Your task to perform on an android device: change the clock style Image 0: 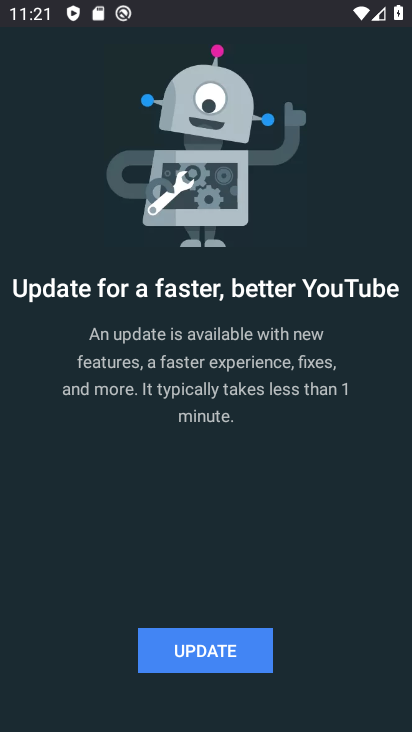
Step 0: press home button
Your task to perform on an android device: change the clock style Image 1: 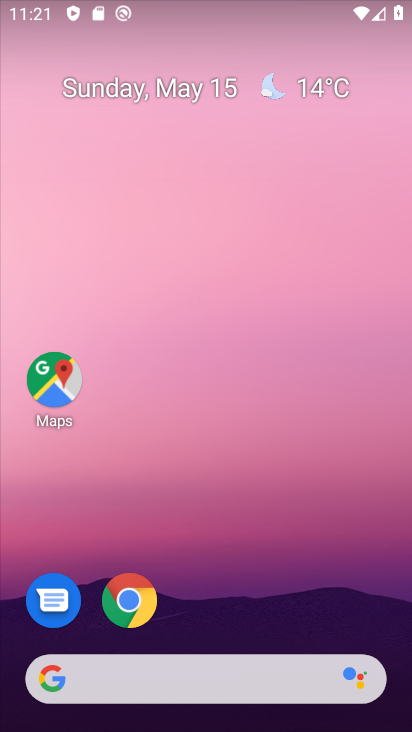
Step 1: drag from (375, 546) to (330, 64)
Your task to perform on an android device: change the clock style Image 2: 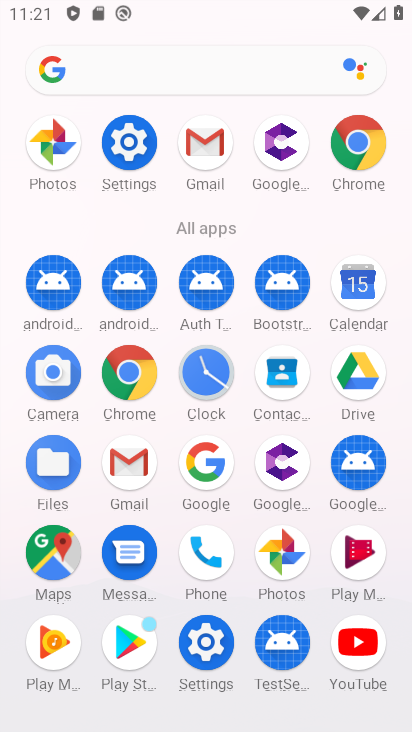
Step 2: click (207, 369)
Your task to perform on an android device: change the clock style Image 3: 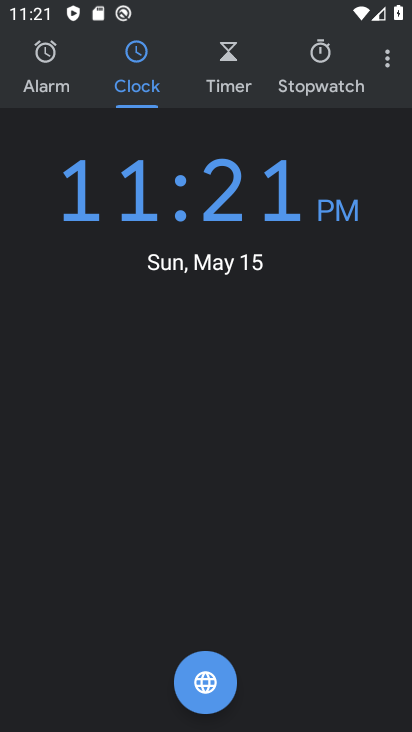
Step 3: click (393, 65)
Your task to perform on an android device: change the clock style Image 4: 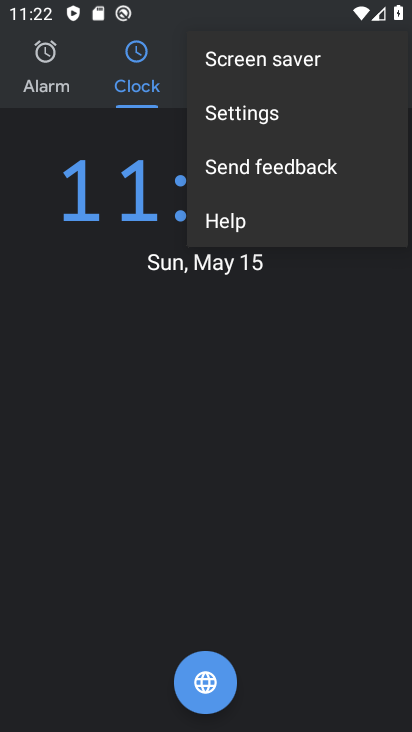
Step 4: click (246, 106)
Your task to perform on an android device: change the clock style Image 5: 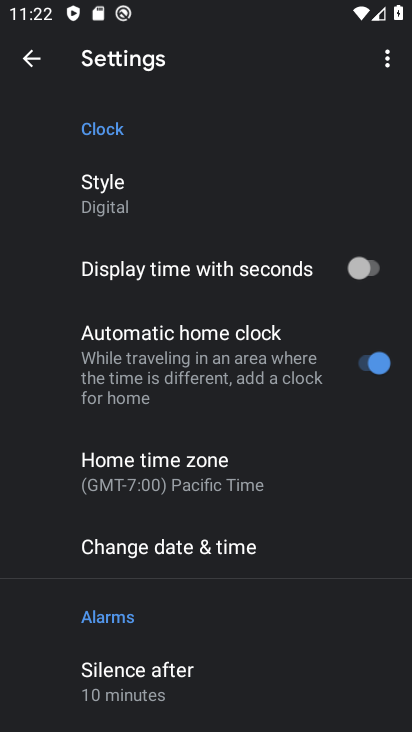
Step 5: click (126, 189)
Your task to perform on an android device: change the clock style Image 6: 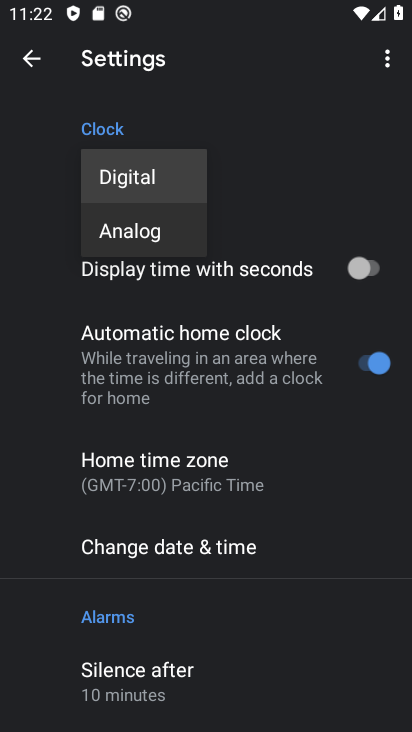
Step 6: click (140, 230)
Your task to perform on an android device: change the clock style Image 7: 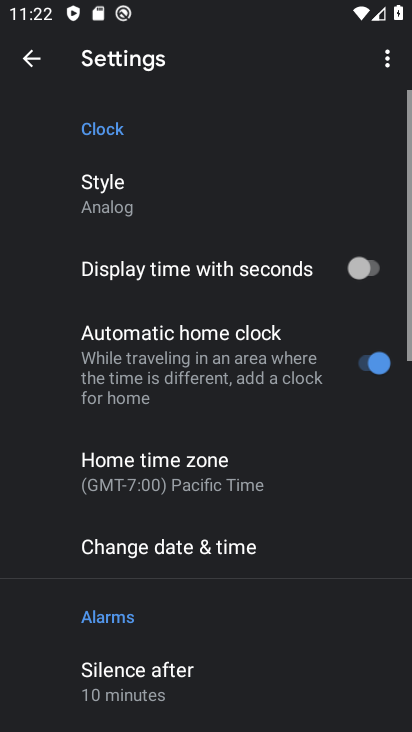
Step 7: task complete